Your task to perform on an android device: check storage Image 0: 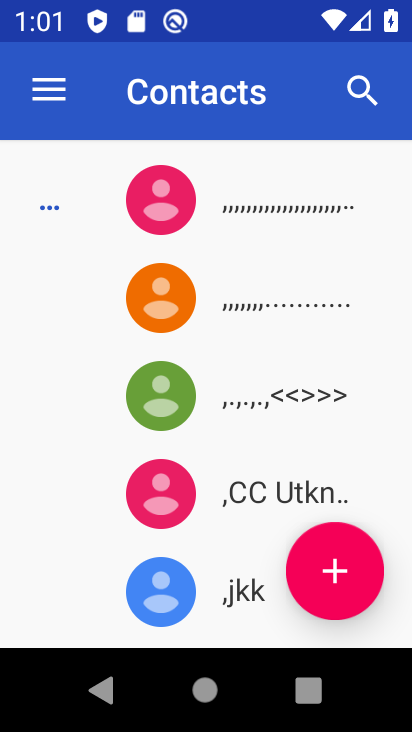
Step 0: press home button
Your task to perform on an android device: check storage Image 1: 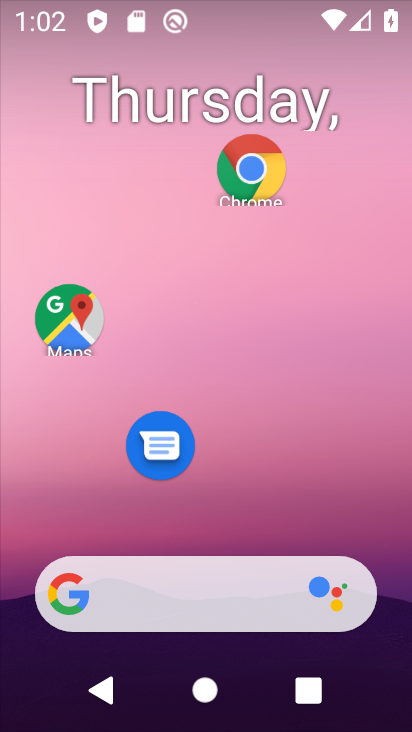
Step 1: drag from (250, 635) to (357, 145)
Your task to perform on an android device: check storage Image 2: 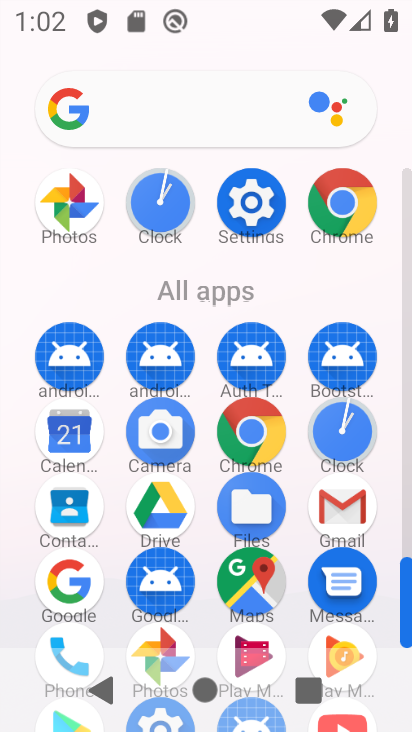
Step 2: click (248, 195)
Your task to perform on an android device: check storage Image 3: 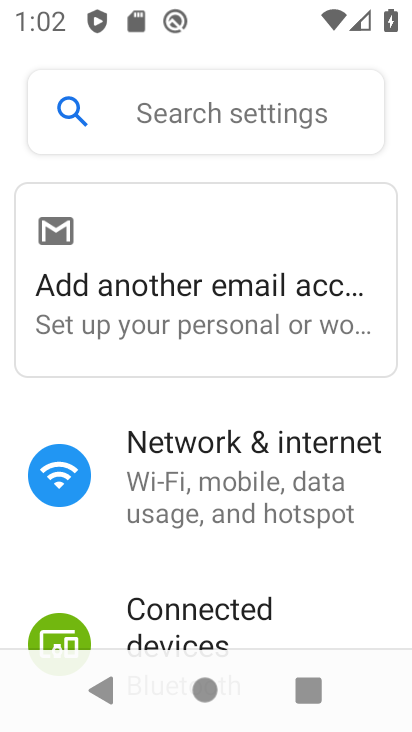
Step 3: click (216, 118)
Your task to perform on an android device: check storage Image 4: 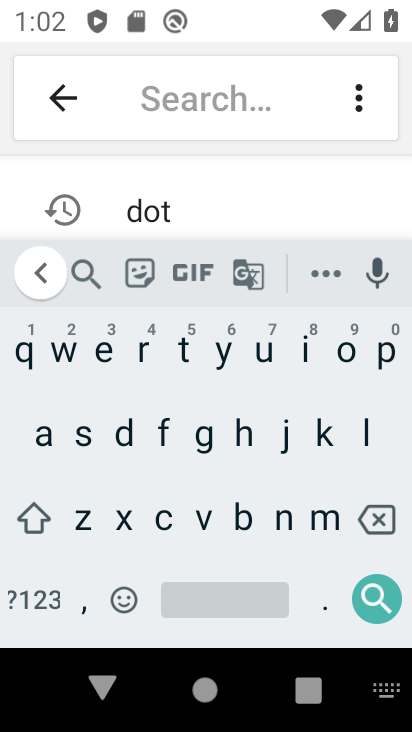
Step 4: click (76, 428)
Your task to perform on an android device: check storage Image 5: 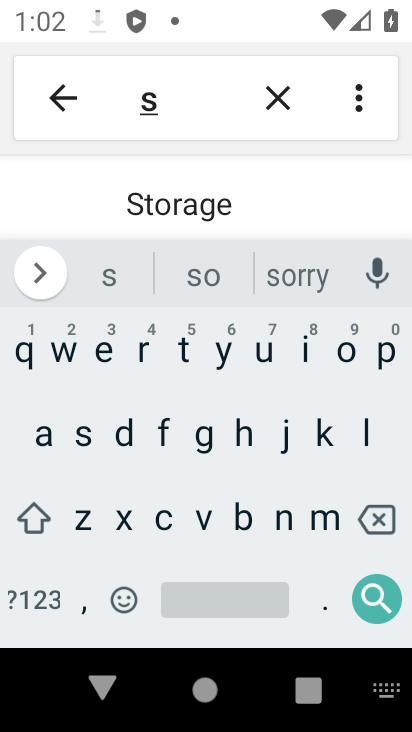
Step 5: click (177, 213)
Your task to perform on an android device: check storage Image 6: 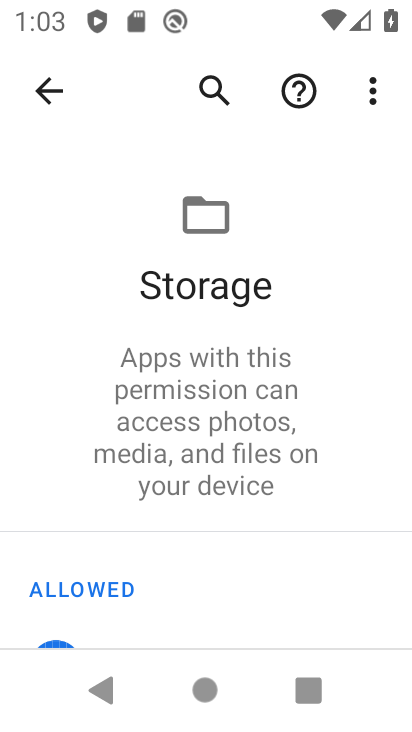
Step 6: task complete